Your task to perform on an android device: Show me productivity apps on the Play Store Image 0: 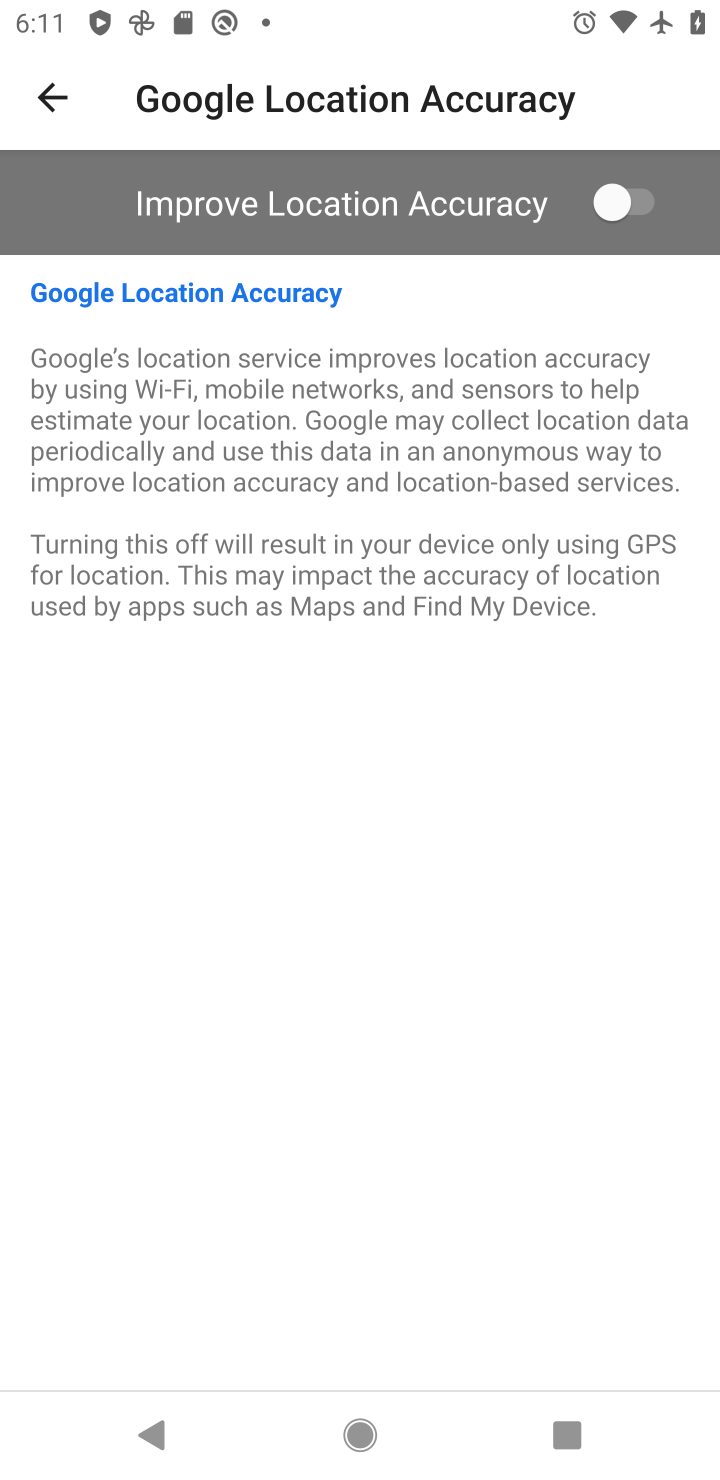
Step 0: press home button
Your task to perform on an android device: Show me productivity apps on the Play Store Image 1: 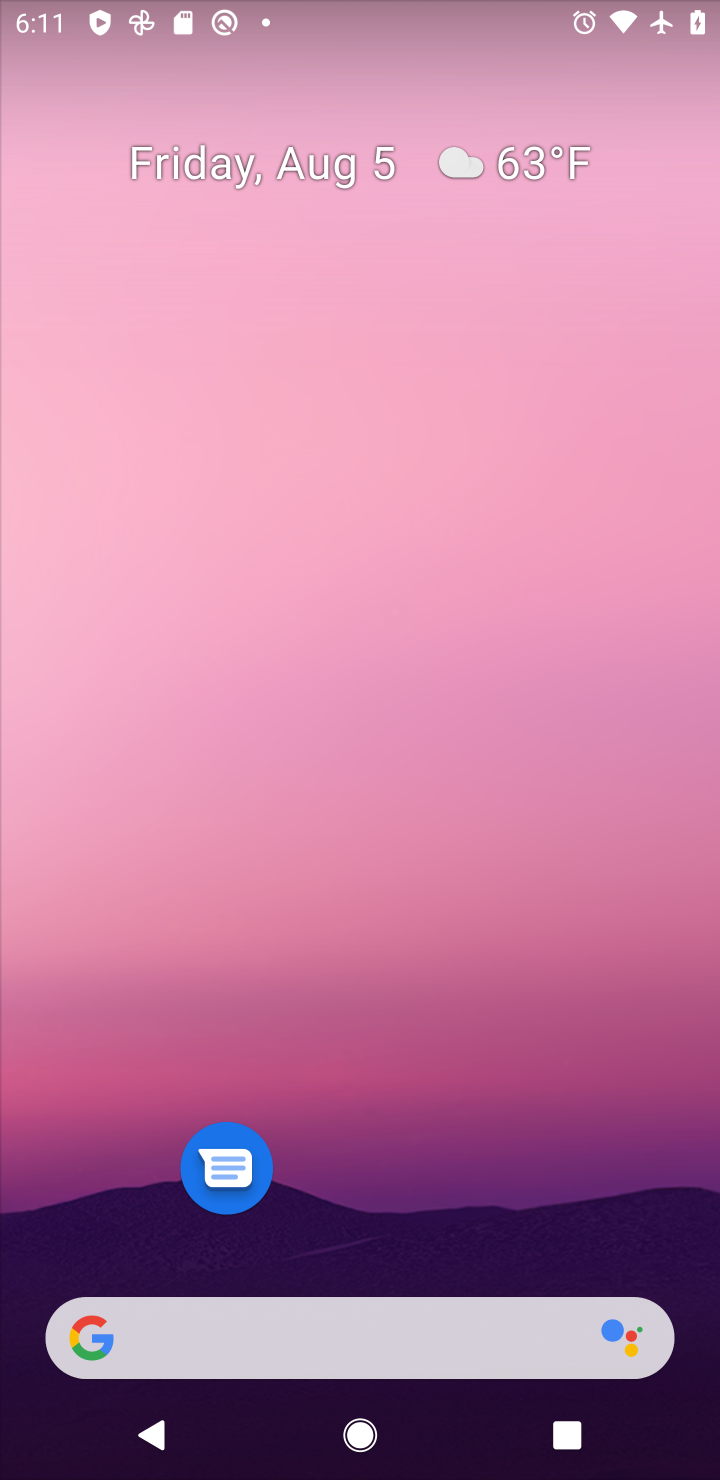
Step 1: drag from (365, 1247) to (450, 131)
Your task to perform on an android device: Show me productivity apps on the Play Store Image 2: 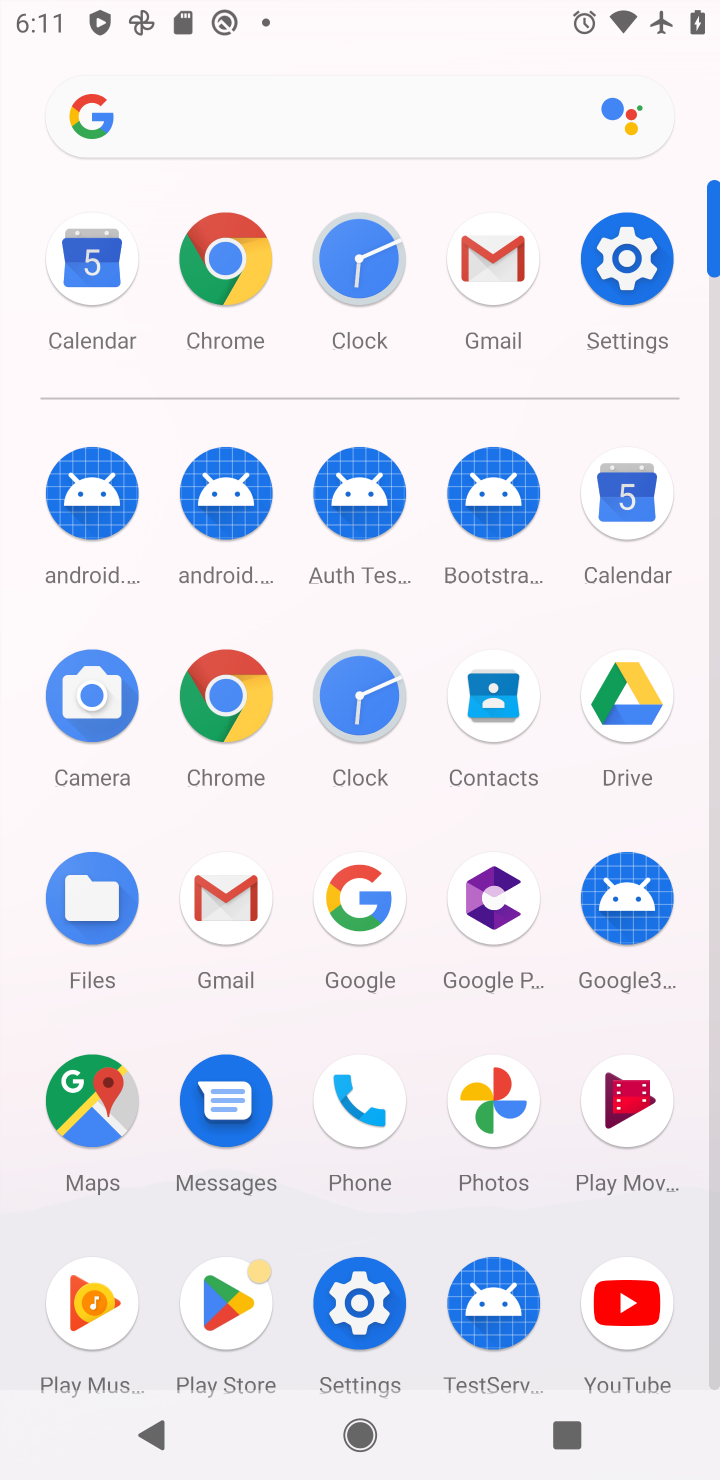
Step 2: click (215, 1305)
Your task to perform on an android device: Show me productivity apps on the Play Store Image 3: 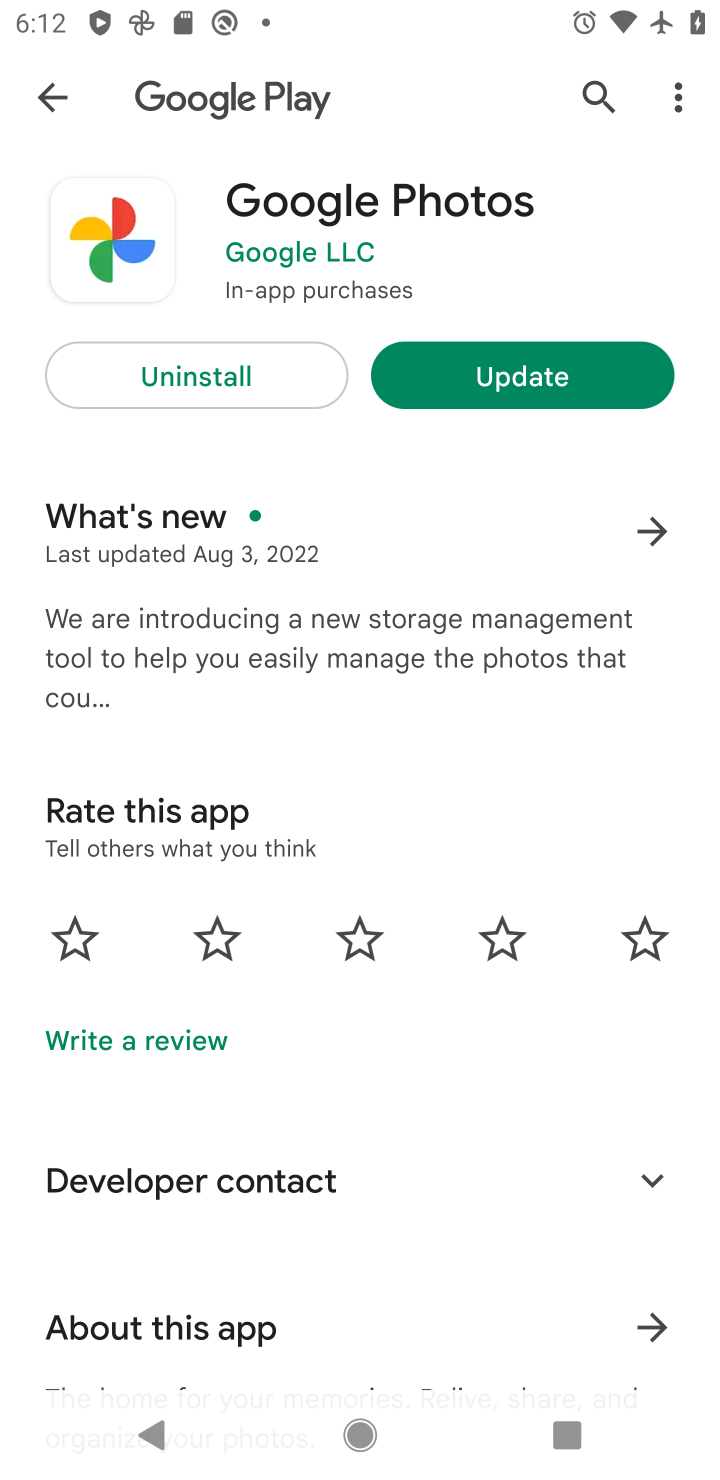
Step 3: click (62, 95)
Your task to perform on an android device: Show me productivity apps on the Play Store Image 4: 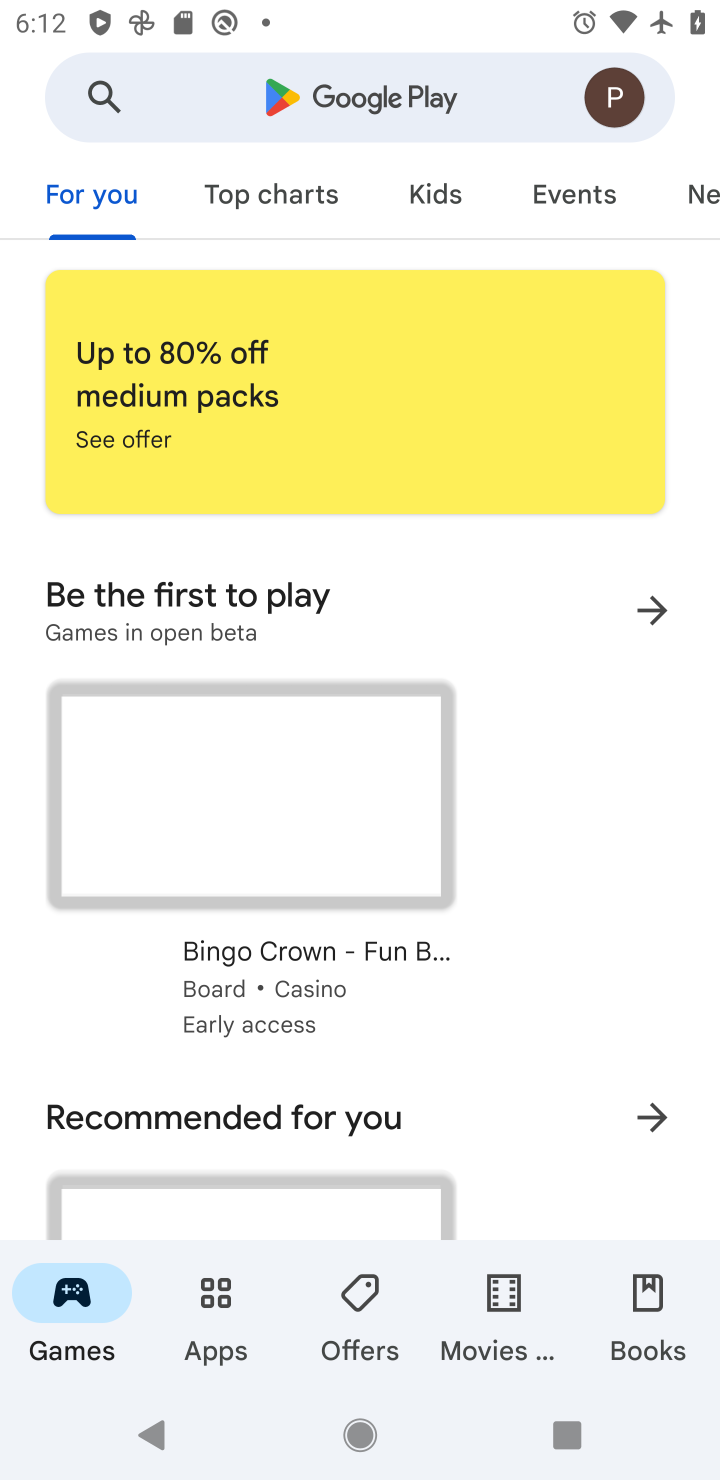
Step 4: click (212, 1287)
Your task to perform on an android device: Show me productivity apps on the Play Store Image 5: 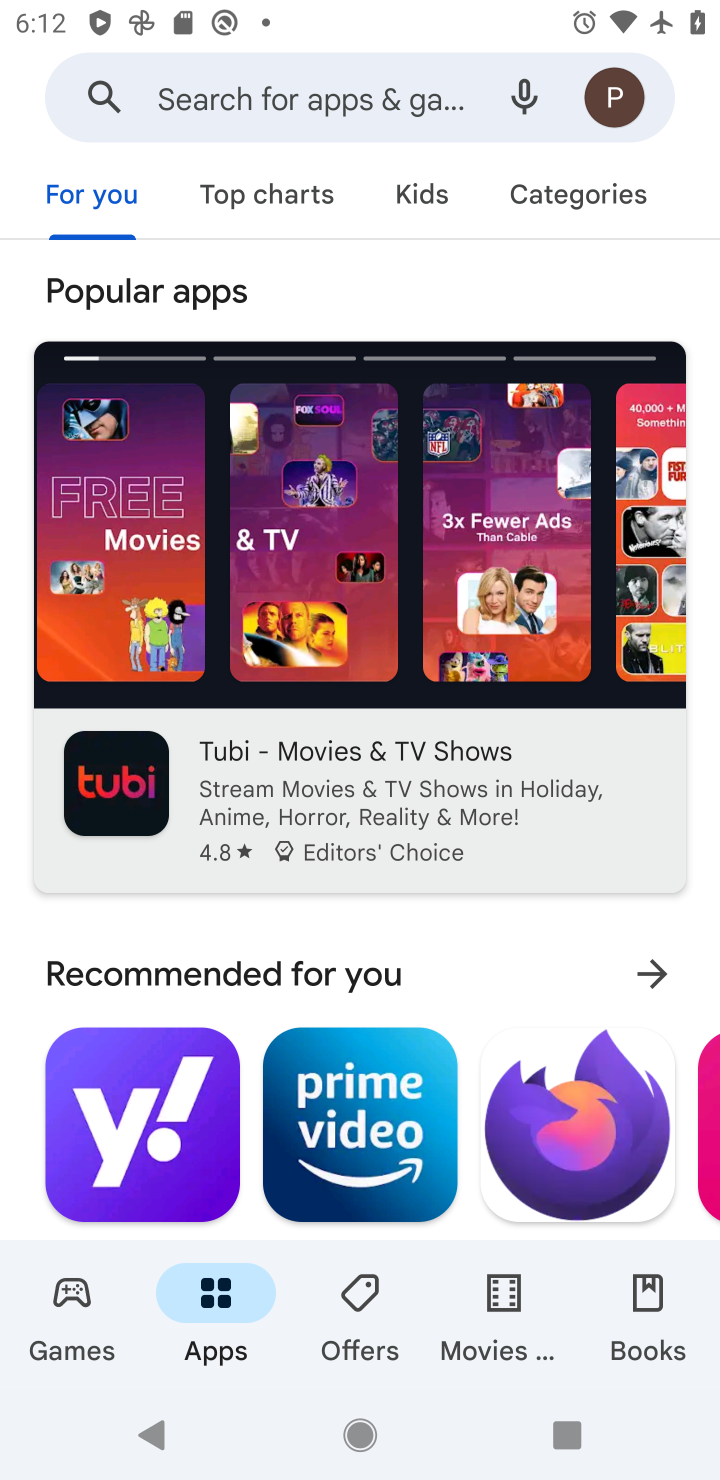
Step 5: click (620, 188)
Your task to perform on an android device: Show me productivity apps on the Play Store Image 6: 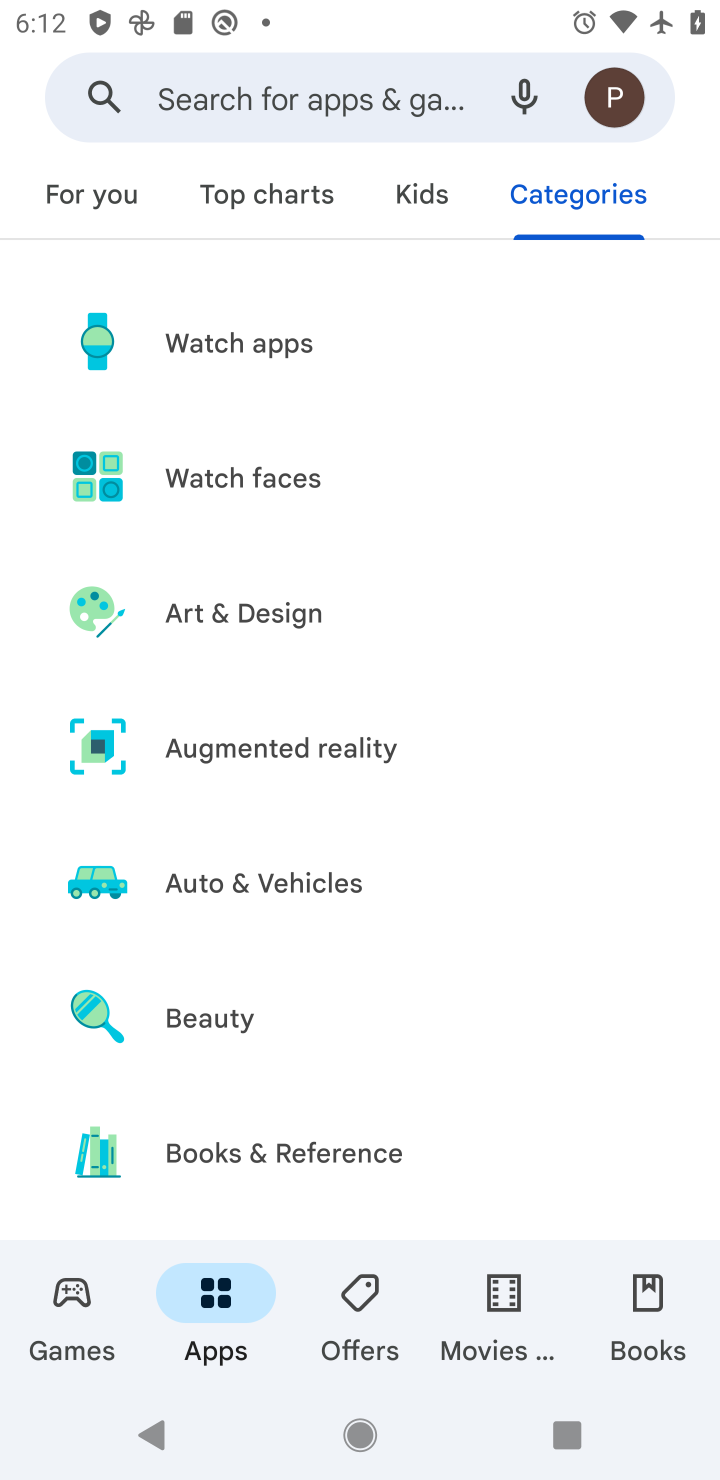
Step 6: drag from (487, 1058) to (450, 41)
Your task to perform on an android device: Show me productivity apps on the Play Store Image 7: 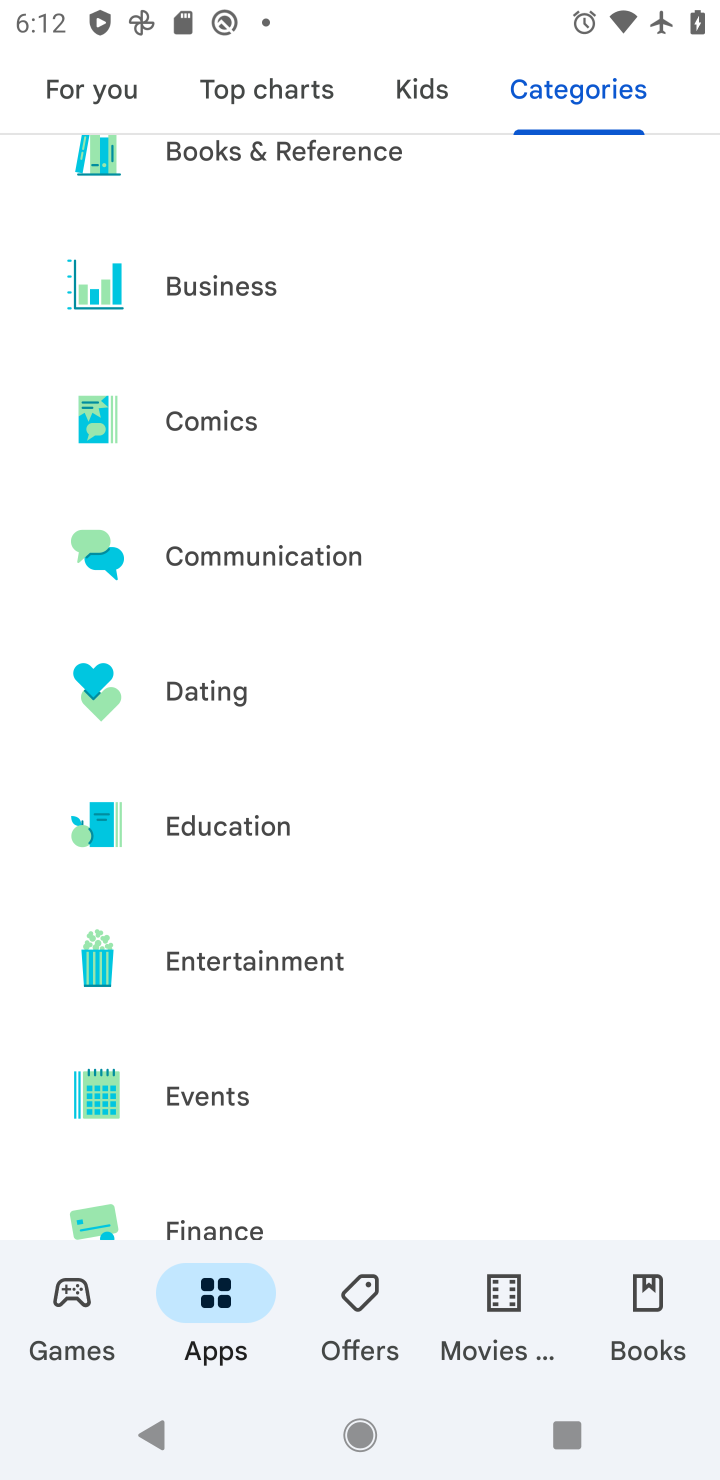
Step 7: drag from (522, 1082) to (551, 110)
Your task to perform on an android device: Show me productivity apps on the Play Store Image 8: 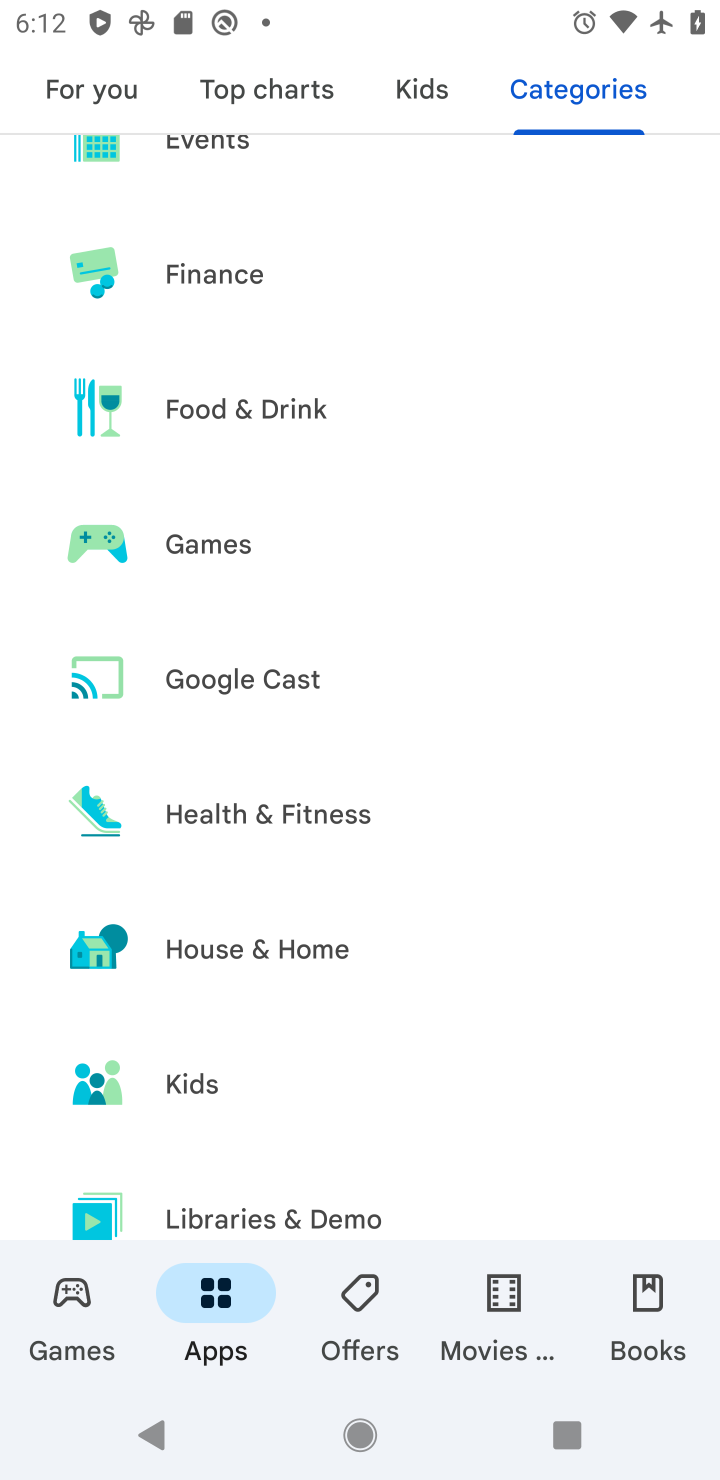
Step 8: drag from (560, 1055) to (552, 95)
Your task to perform on an android device: Show me productivity apps on the Play Store Image 9: 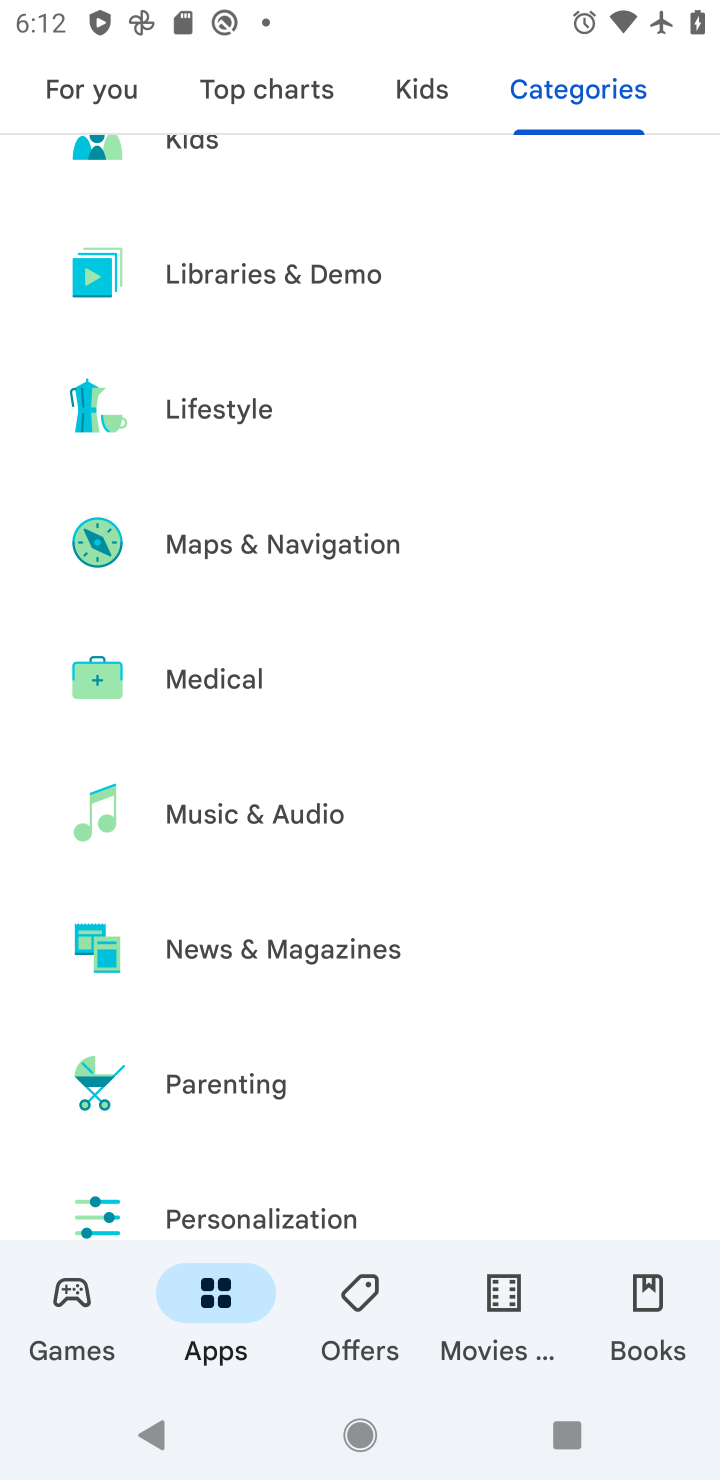
Step 9: drag from (538, 1079) to (494, 243)
Your task to perform on an android device: Show me productivity apps on the Play Store Image 10: 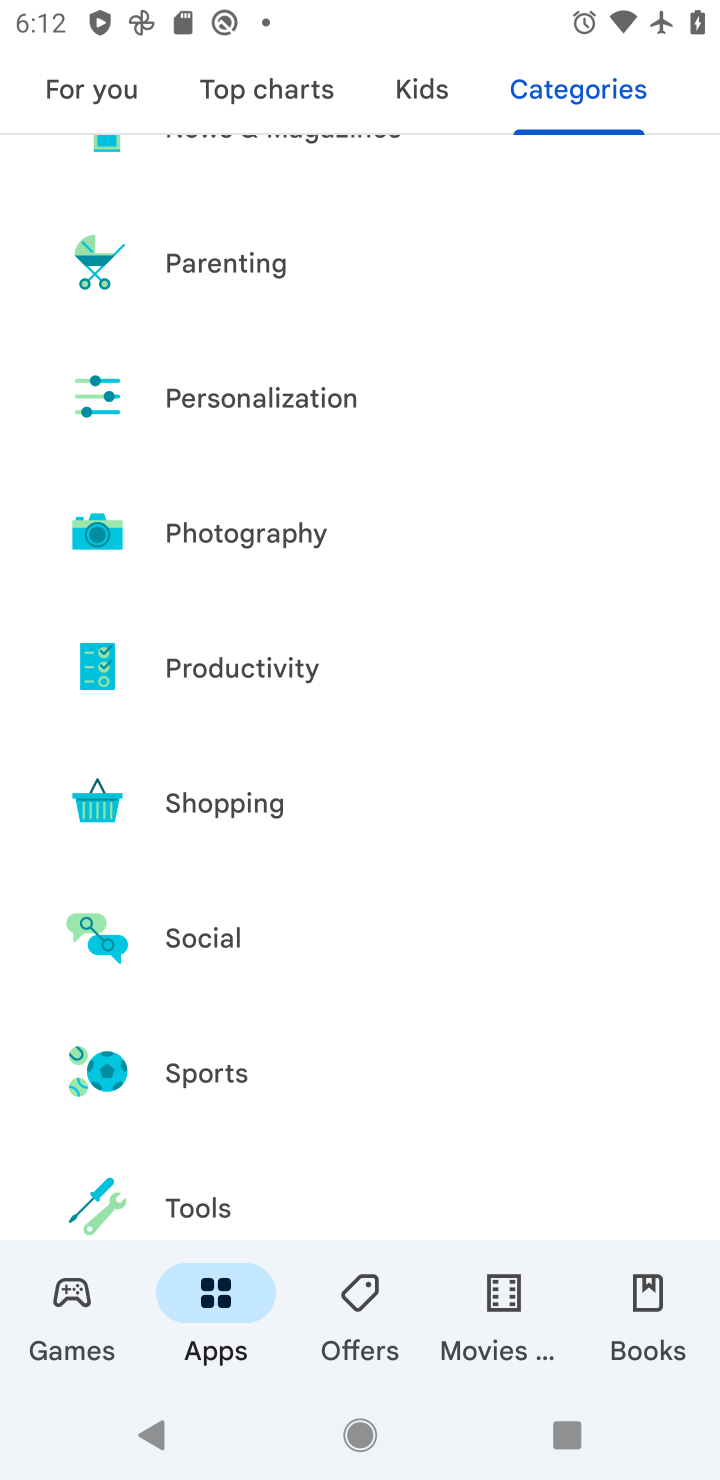
Step 10: click (223, 659)
Your task to perform on an android device: Show me productivity apps on the Play Store Image 11: 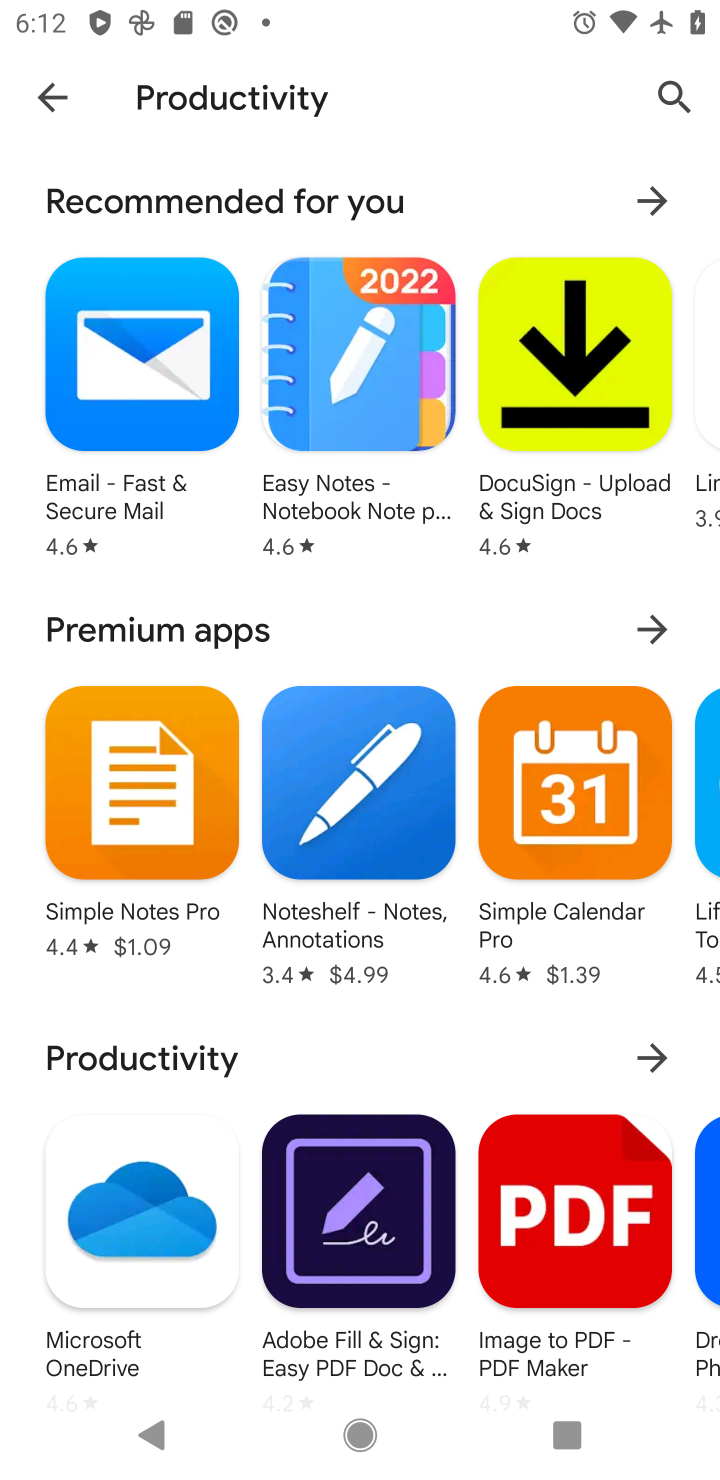
Step 11: task complete